Your task to perform on an android device: change the upload size in google photos Image 0: 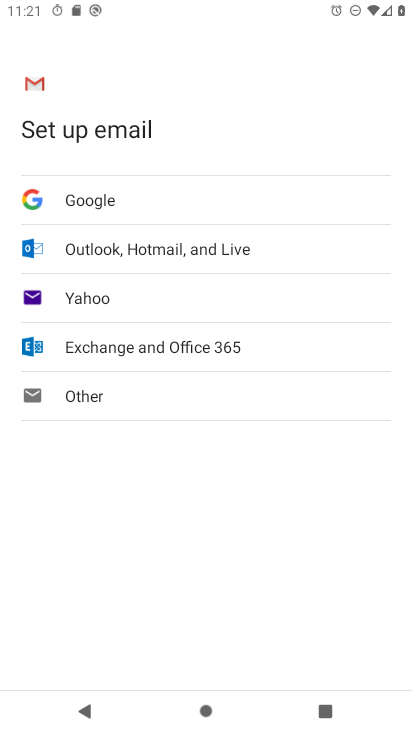
Step 0: press back button
Your task to perform on an android device: change the upload size in google photos Image 1: 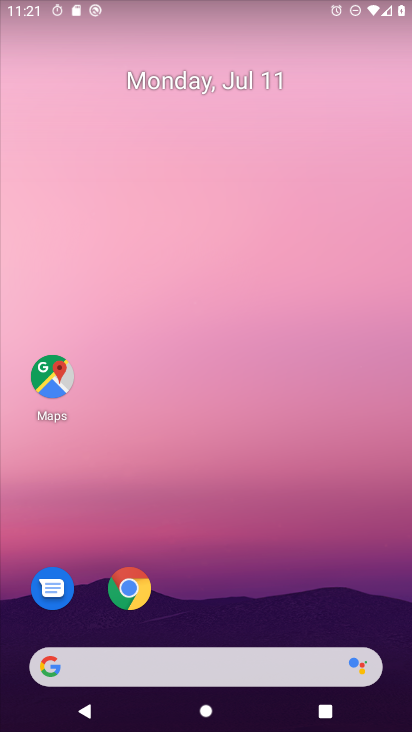
Step 1: drag from (282, 617) to (355, 13)
Your task to perform on an android device: change the upload size in google photos Image 2: 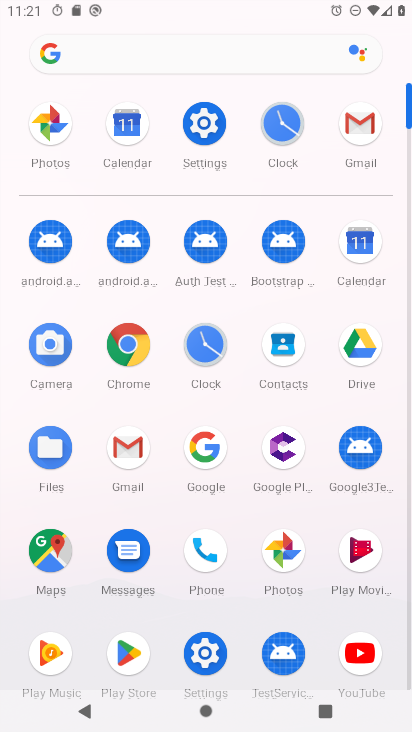
Step 2: click (279, 555)
Your task to perform on an android device: change the upload size in google photos Image 3: 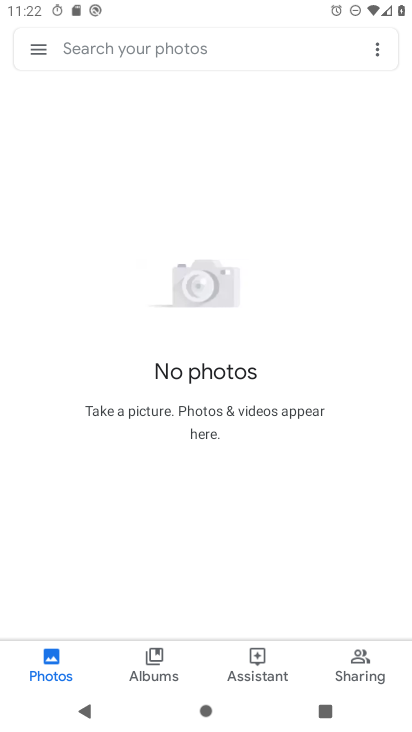
Step 3: click (33, 54)
Your task to perform on an android device: change the upload size in google photos Image 4: 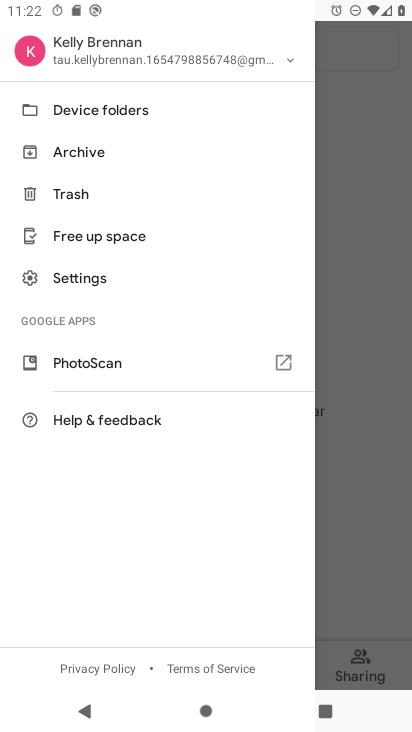
Step 4: click (96, 267)
Your task to perform on an android device: change the upload size in google photos Image 5: 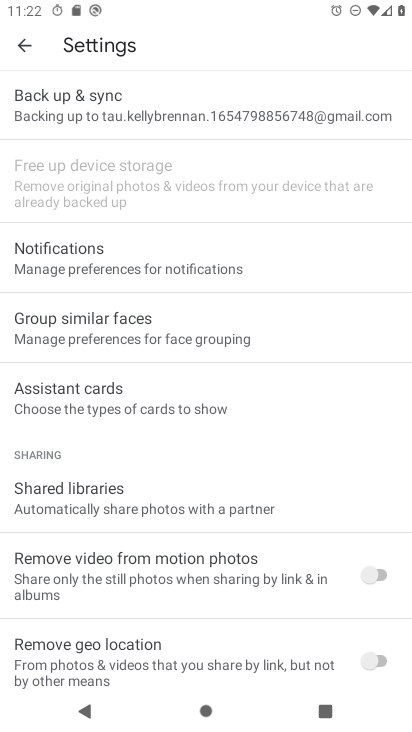
Step 5: drag from (142, 595) to (197, 62)
Your task to perform on an android device: change the upload size in google photos Image 6: 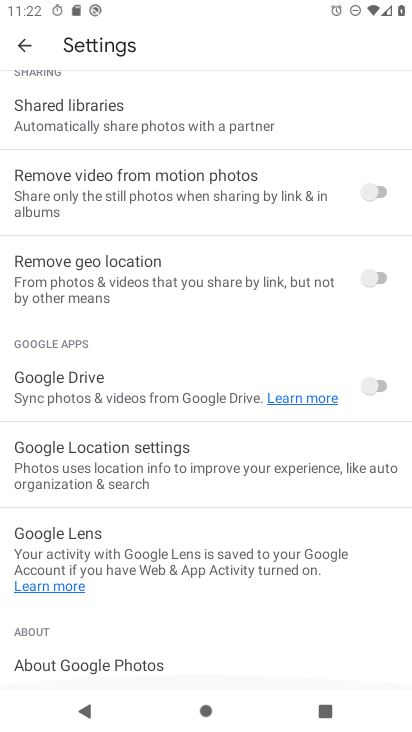
Step 6: drag from (157, 619) to (248, 730)
Your task to perform on an android device: change the upload size in google photos Image 7: 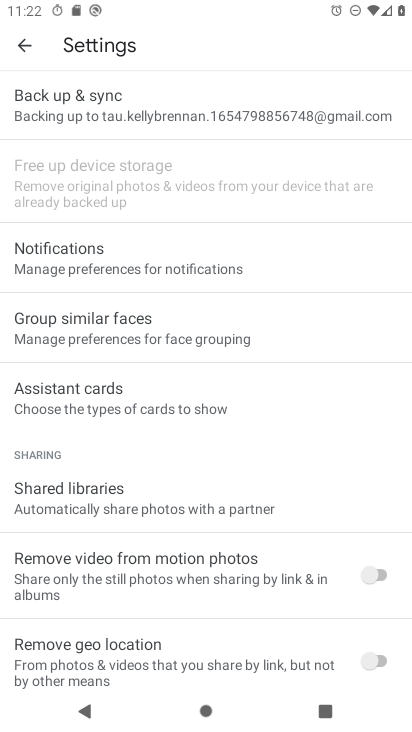
Step 7: click (126, 86)
Your task to perform on an android device: change the upload size in google photos Image 8: 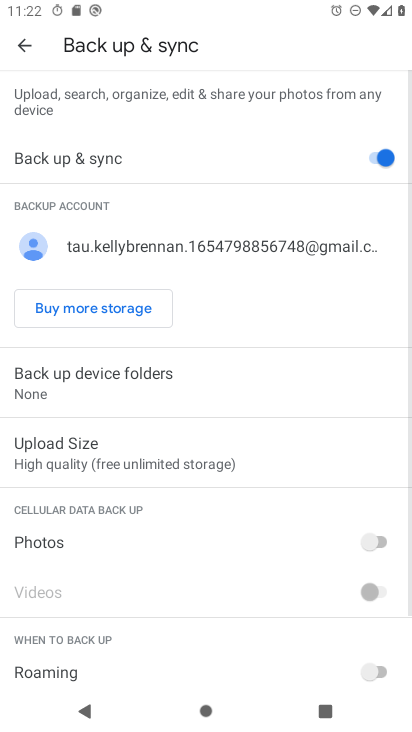
Step 8: click (123, 465)
Your task to perform on an android device: change the upload size in google photos Image 9: 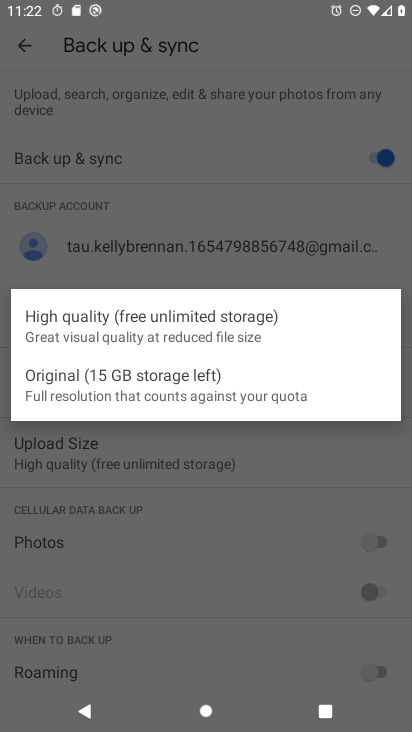
Step 9: click (104, 466)
Your task to perform on an android device: change the upload size in google photos Image 10: 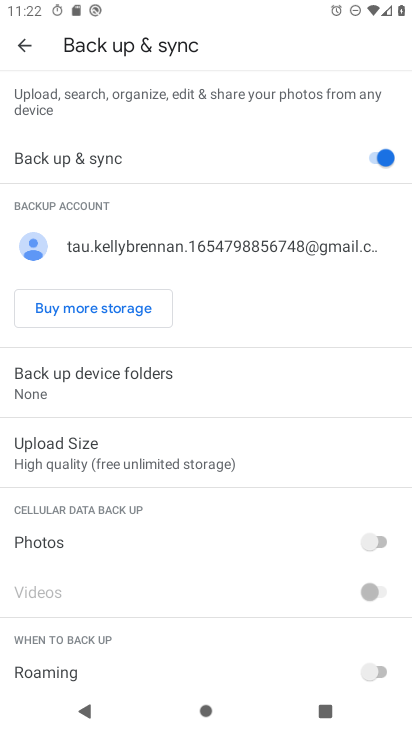
Step 10: click (104, 462)
Your task to perform on an android device: change the upload size in google photos Image 11: 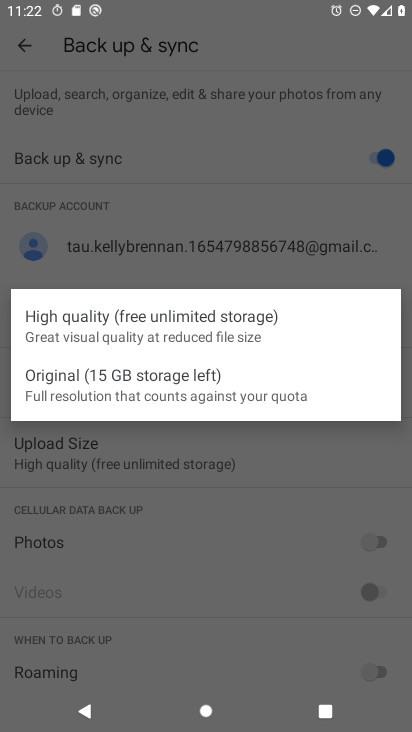
Step 11: click (63, 392)
Your task to perform on an android device: change the upload size in google photos Image 12: 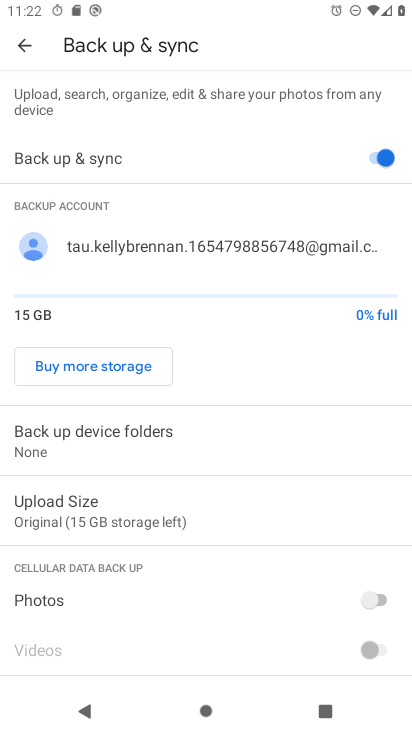
Step 12: task complete